Your task to perform on an android device: open device folders in google photos Image 0: 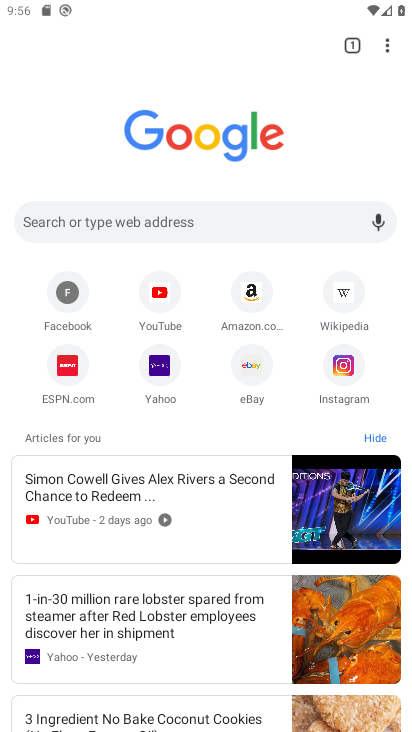
Step 0: drag from (128, 598) to (151, 464)
Your task to perform on an android device: open device folders in google photos Image 1: 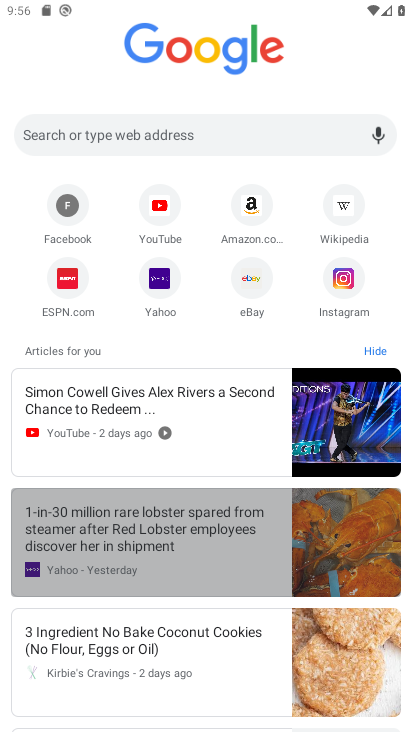
Step 1: drag from (168, 405) to (219, 689)
Your task to perform on an android device: open device folders in google photos Image 2: 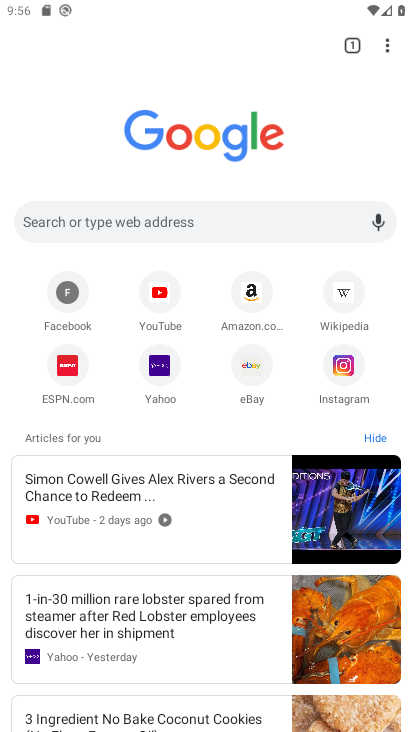
Step 2: drag from (241, 566) to (231, 418)
Your task to perform on an android device: open device folders in google photos Image 3: 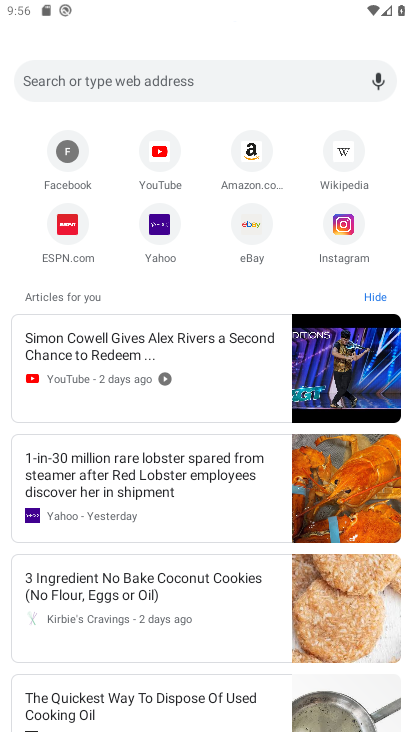
Step 3: drag from (223, 447) to (222, 724)
Your task to perform on an android device: open device folders in google photos Image 4: 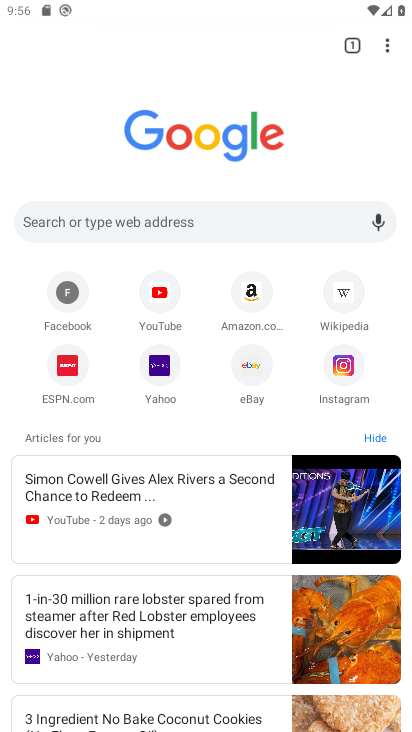
Step 4: press home button
Your task to perform on an android device: open device folders in google photos Image 5: 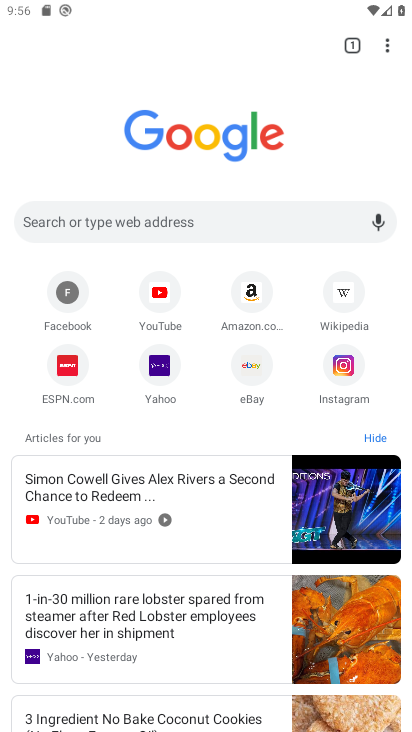
Step 5: drag from (222, 724) to (410, 455)
Your task to perform on an android device: open device folders in google photos Image 6: 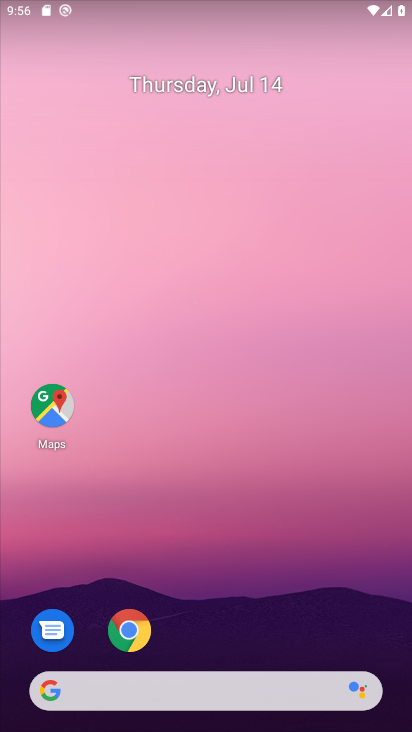
Step 6: drag from (182, 450) to (295, 83)
Your task to perform on an android device: open device folders in google photos Image 7: 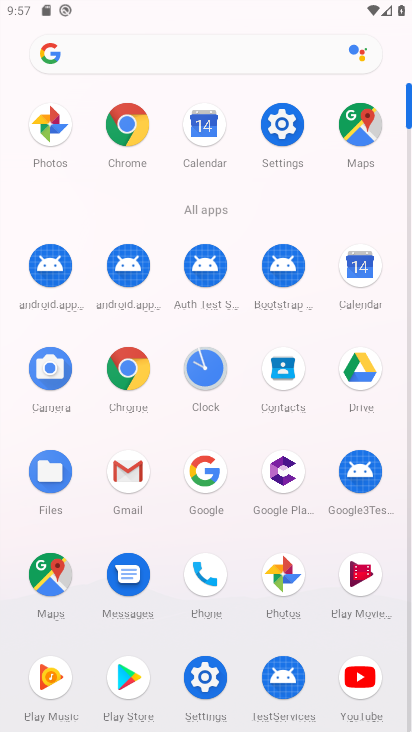
Step 7: click (278, 569)
Your task to perform on an android device: open device folders in google photos Image 8: 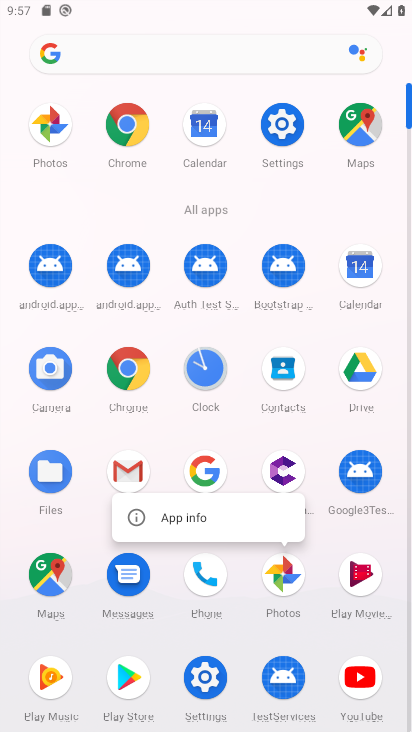
Step 8: click (240, 518)
Your task to perform on an android device: open device folders in google photos Image 9: 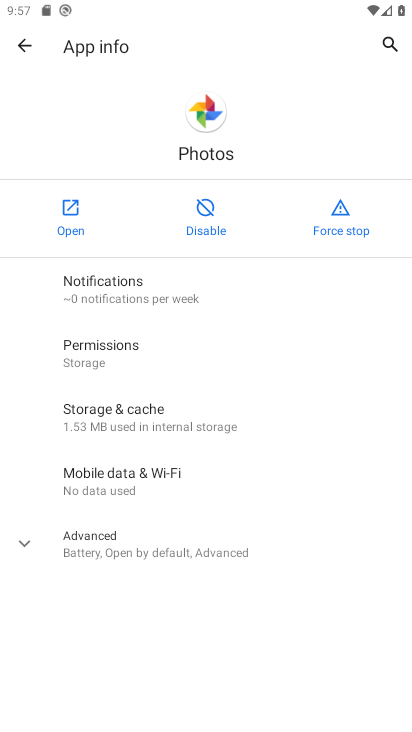
Step 9: click (75, 217)
Your task to perform on an android device: open device folders in google photos Image 10: 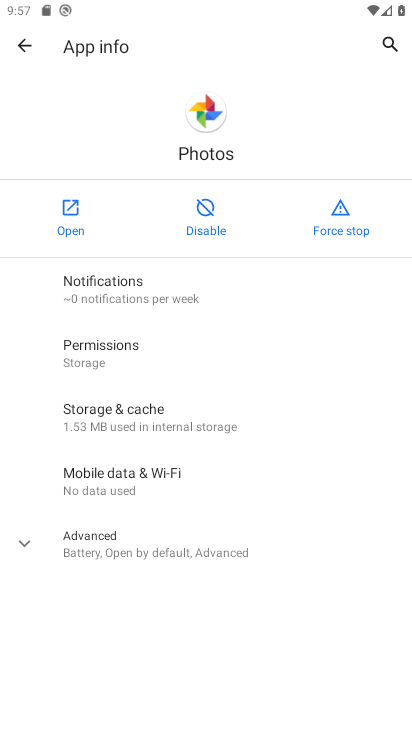
Step 10: click (75, 217)
Your task to perform on an android device: open device folders in google photos Image 11: 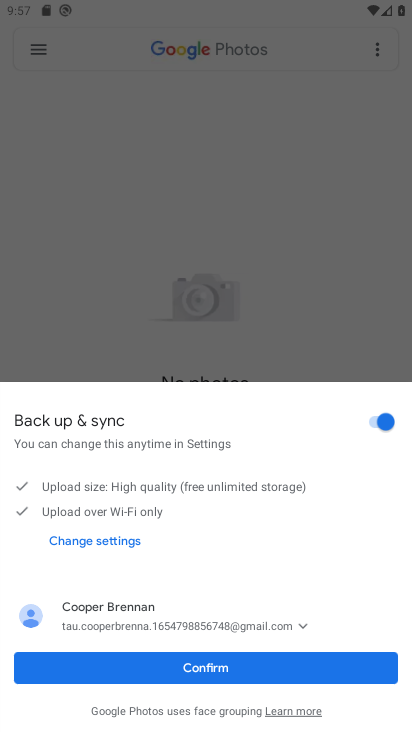
Step 11: click (177, 661)
Your task to perform on an android device: open device folders in google photos Image 12: 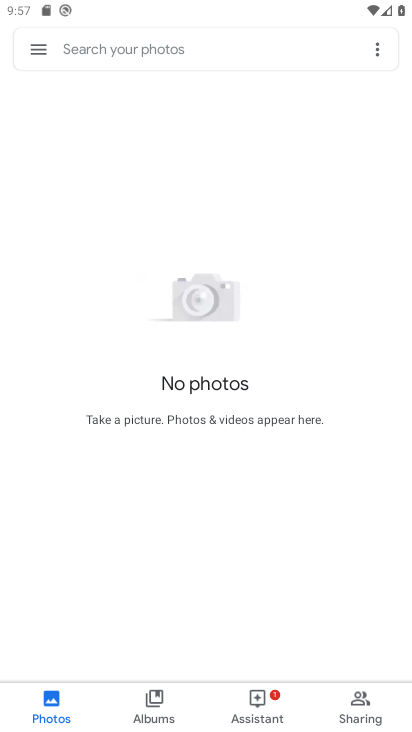
Step 12: drag from (239, 484) to (250, 374)
Your task to perform on an android device: open device folders in google photos Image 13: 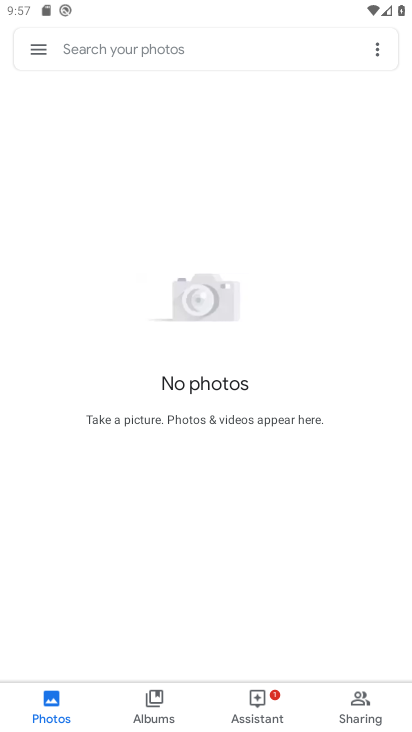
Step 13: click (36, 61)
Your task to perform on an android device: open device folders in google photos Image 14: 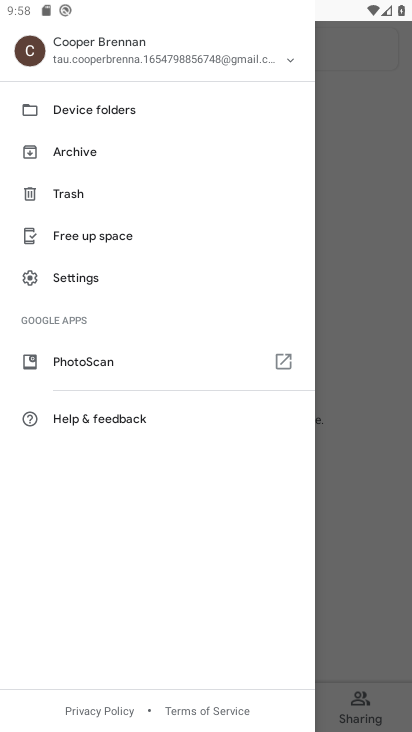
Step 14: drag from (222, 558) to (255, 268)
Your task to perform on an android device: open device folders in google photos Image 15: 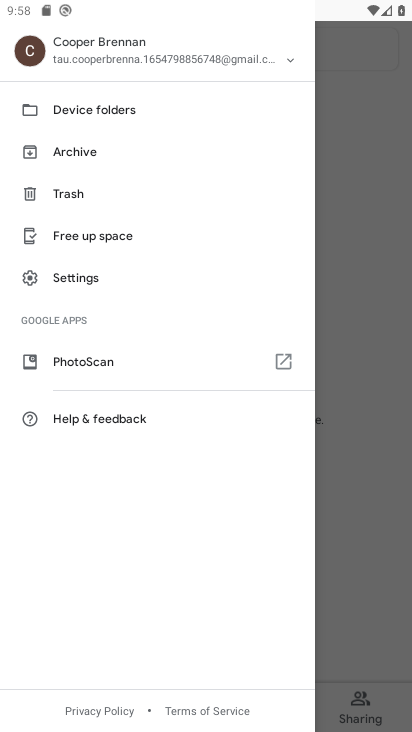
Step 15: click (123, 114)
Your task to perform on an android device: open device folders in google photos Image 16: 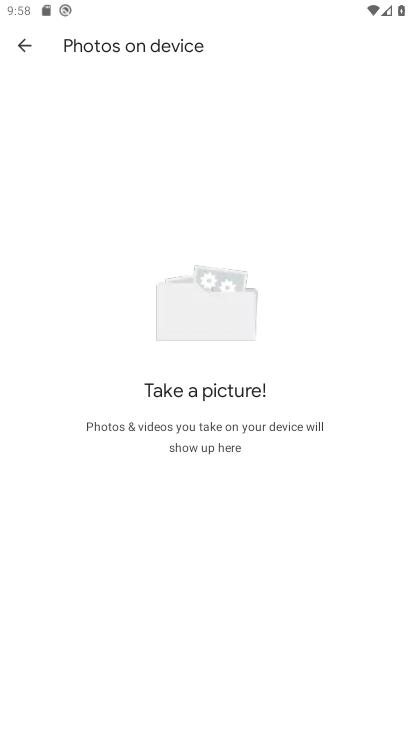
Step 16: task complete